Your task to perform on an android device: toggle data saver in the chrome app Image 0: 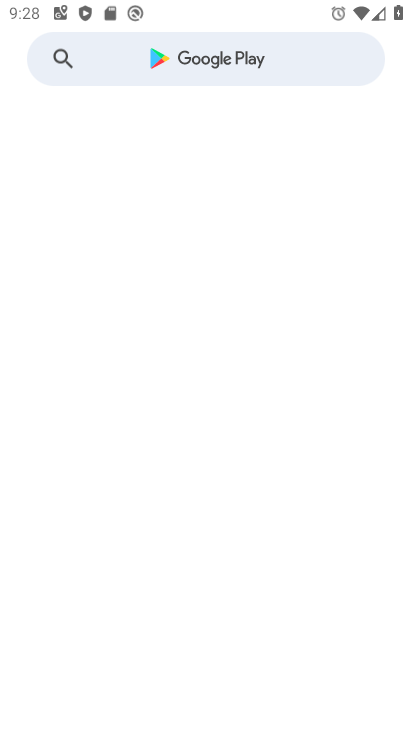
Step 0: press home button
Your task to perform on an android device: toggle data saver in the chrome app Image 1: 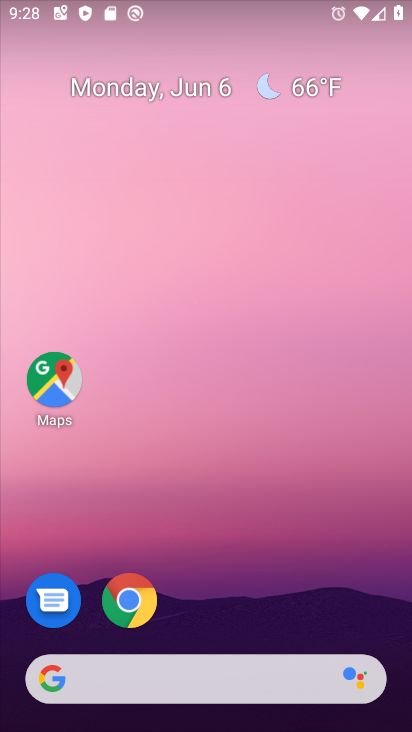
Step 1: click (134, 606)
Your task to perform on an android device: toggle data saver in the chrome app Image 2: 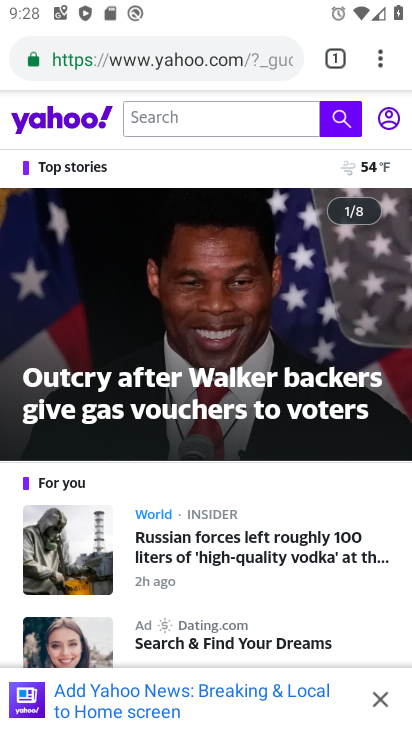
Step 2: click (376, 59)
Your task to perform on an android device: toggle data saver in the chrome app Image 3: 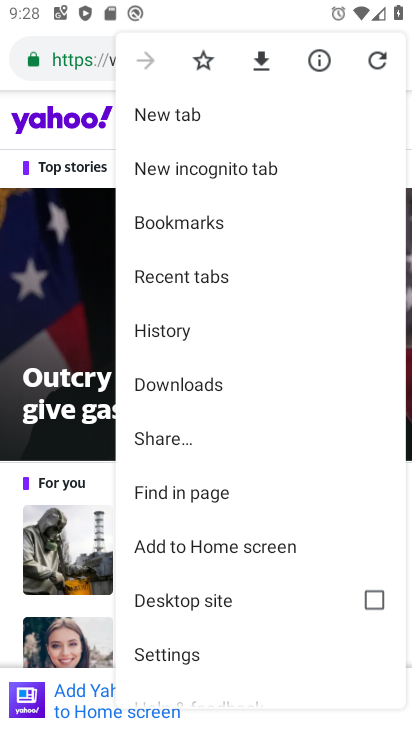
Step 3: click (174, 646)
Your task to perform on an android device: toggle data saver in the chrome app Image 4: 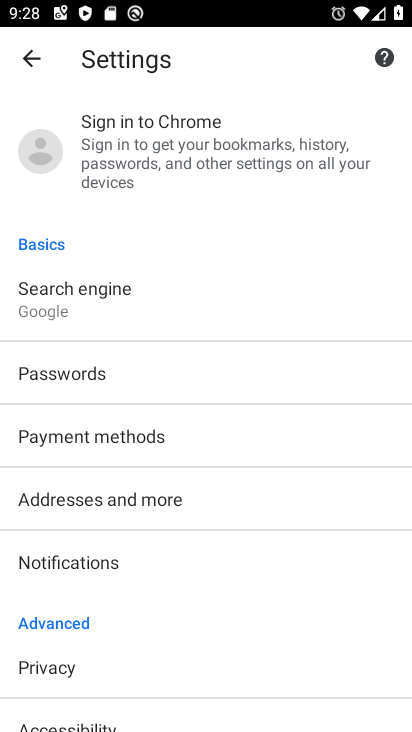
Step 4: drag from (42, 518) to (223, 101)
Your task to perform on an android device: toggle data saver in the chrome app Image 5: 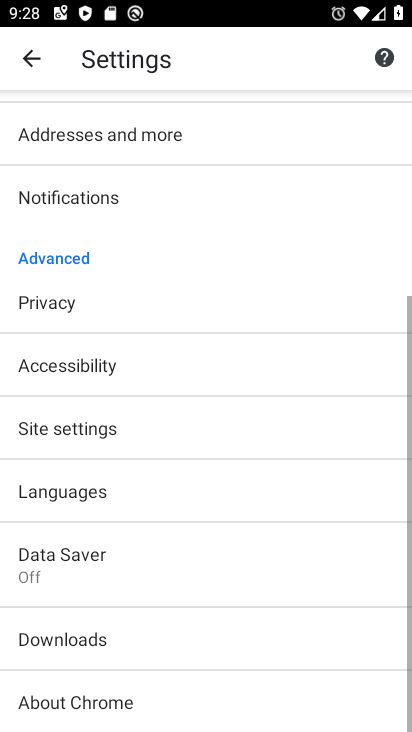
Step 5: click (96, 547)
Your task to perform on an android device: toggle data saver in the chrome app Image 6: 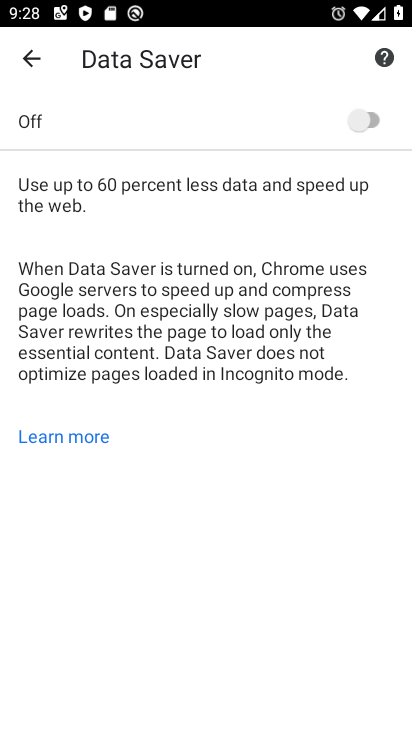
Step 6: click (355, 125)
Your task to perform on an android device: toggle data saver in the chrome app Image 7: 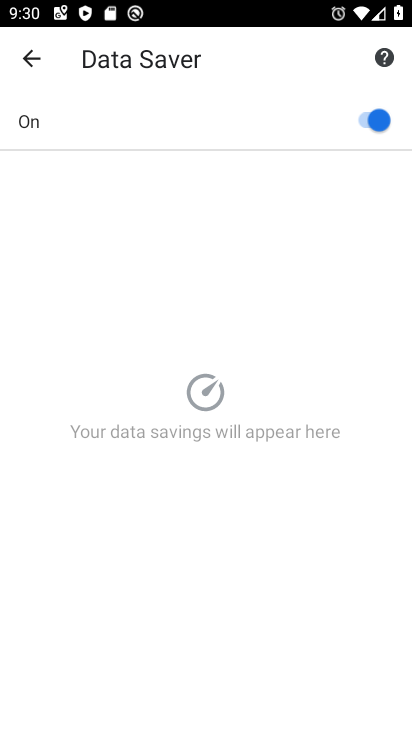
Step 7: task complete